Your task to perform on an android device: Show me popular games on the Play Store Image 0: 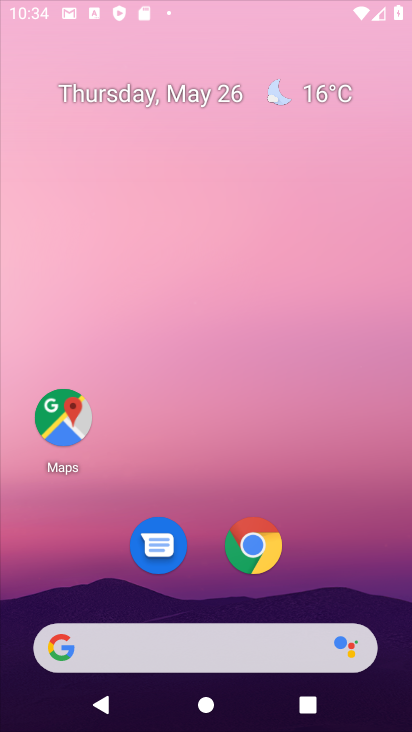
Step 0: press home button
Your task to perform on an android device: Show me popular games on the Play Store Image 1: 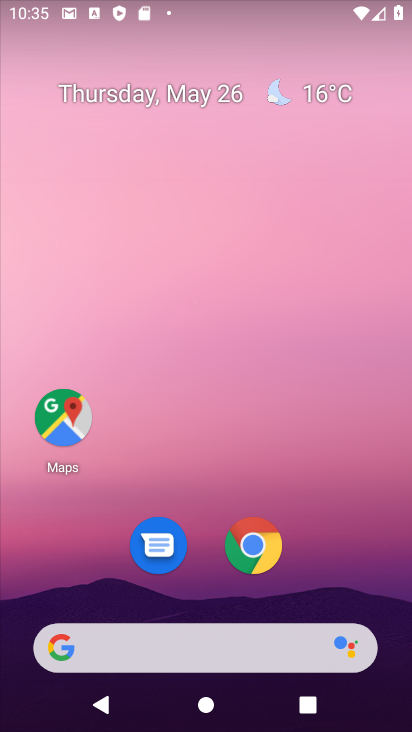
Step 1: drag from (335, 367) to (400, 15)
Your task to perform on an android device: Show me popular games on the Play Store Image 2: 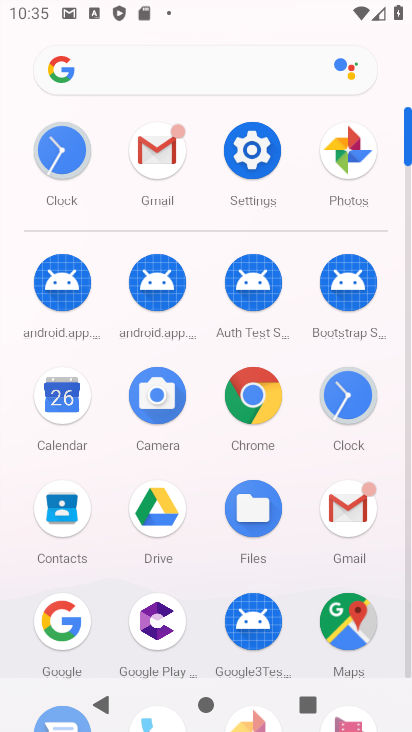
Step 2: drag from (301, 628) to (263, 61)
Your task to perform on an android device: Show me popular games on the Play Store Image 3: 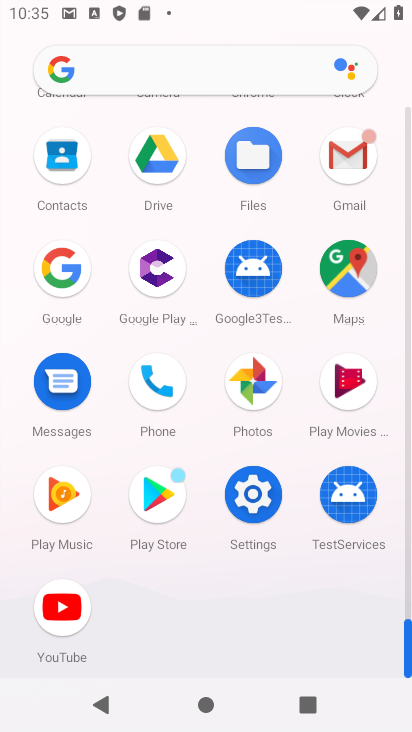
Step 3: click (151, 488)
Your task to perform on an android device: Show me popular games on the Play Store Image 4: 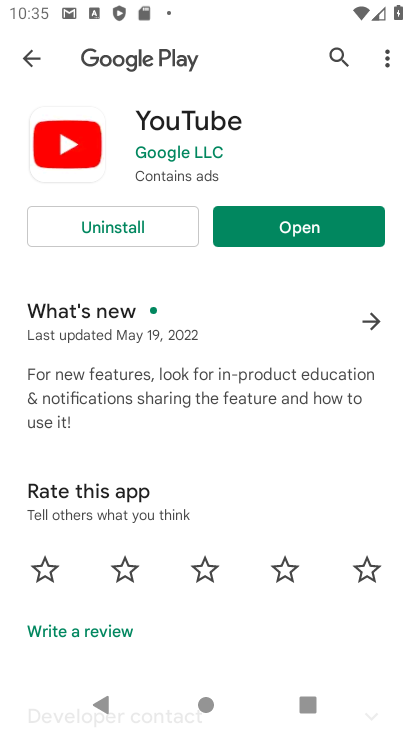
Step 4: press home button
Your task to perform on an android device: Show me popular games on the Play Store Image 5: 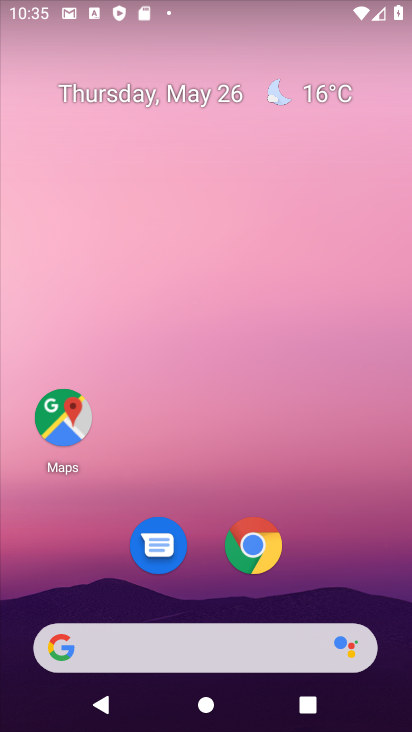
Step 5: drag from (263, 602) to (213, 70)
Your task to perform on an android device: Show me popular games on the Play Store Image 6: 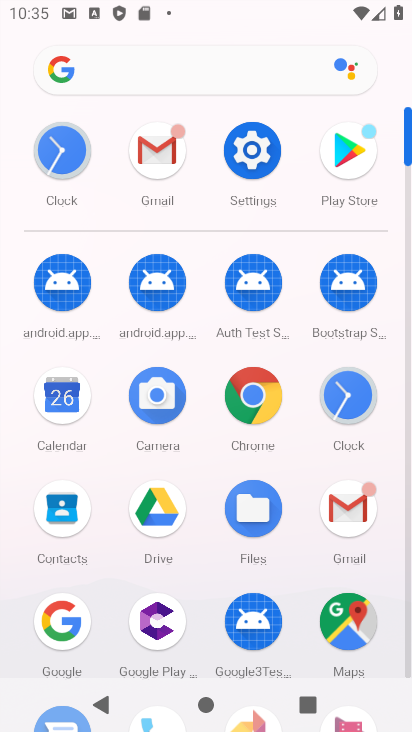
Step 6: drag from (313, 680) to (301, 418)
Your task to perform on an android device: Show me popular games on the Play Store Image 7: 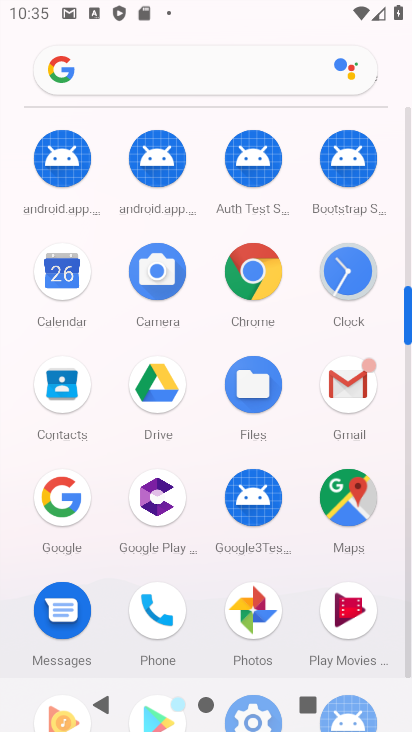
Step 7: click (161, 717)
Your task to perform on an android device: Show me popular games on the Play Store Image 8: 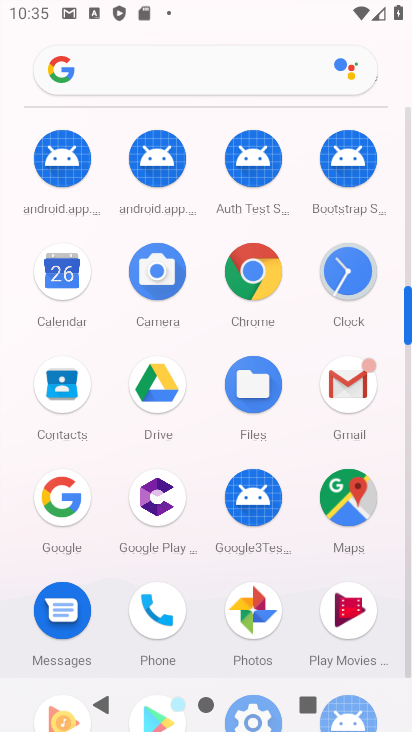
Step 8: drag from (294, 571) to (304, 216)
Your task to perform on an android device: Show me popular games on the Play Store Image 9: 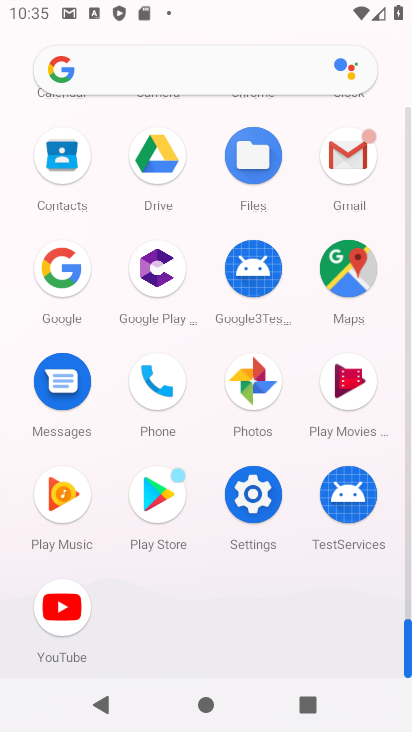
Step 9: click (154, 502)
Your task to perform on an android device: Show me popular games on the Play Store Image 10: 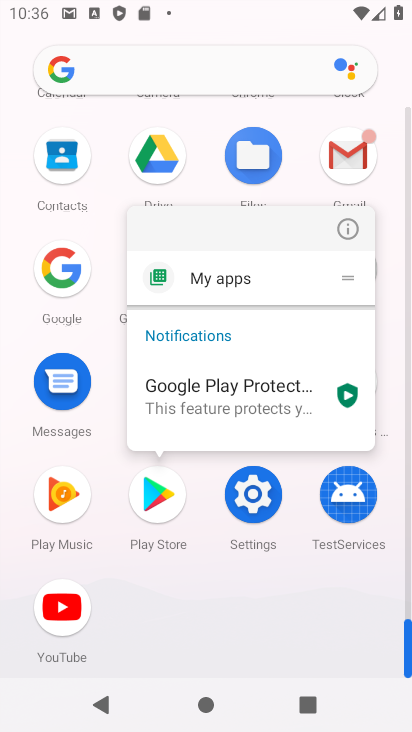
Step 10: click (165, 498)
Your task to perform on an android device: Show me popular games on the Play Store Image 11: 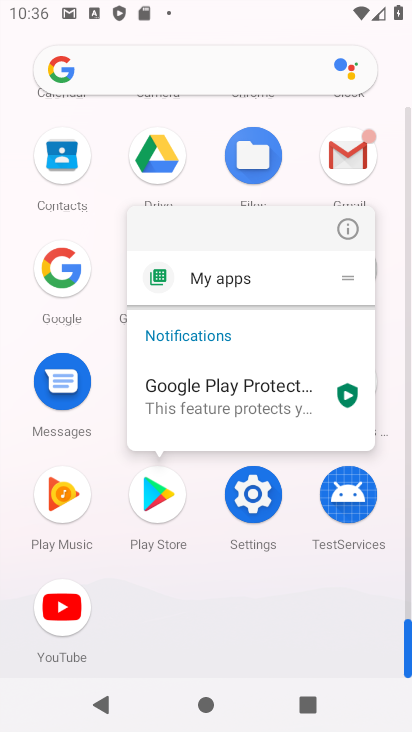
Step 11: click (167, 496)
Your task to perform on an android device: Show me popular games on the Play Store Image 12: 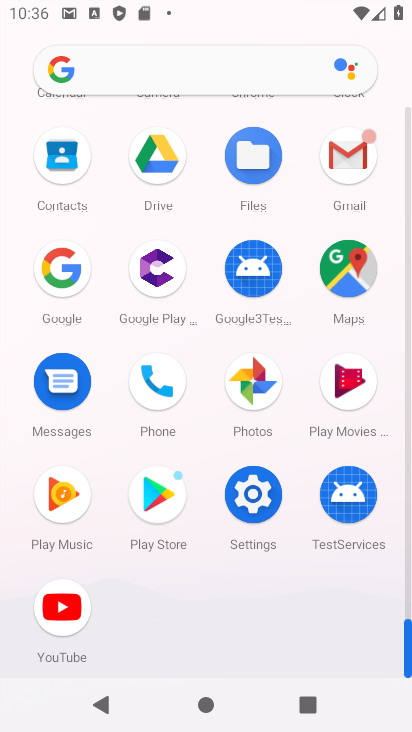
Step 12: click (167, 495)
Your task to perform on an android device: Show me popular games on the Play Store Image 13: 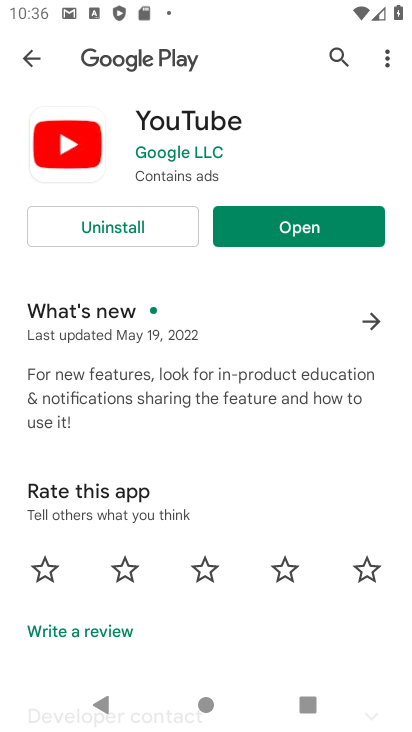
Step 13: click (35, 63)
Your task to perform on an android device: Show me popular games on the Play Store Image 14: 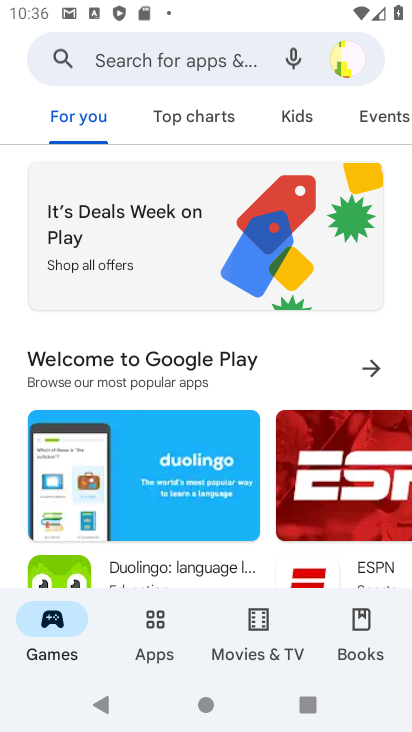
Step 14: click (155, 629)
Your task to perform on an android device: Show me popular games on the Play Store Image 15: 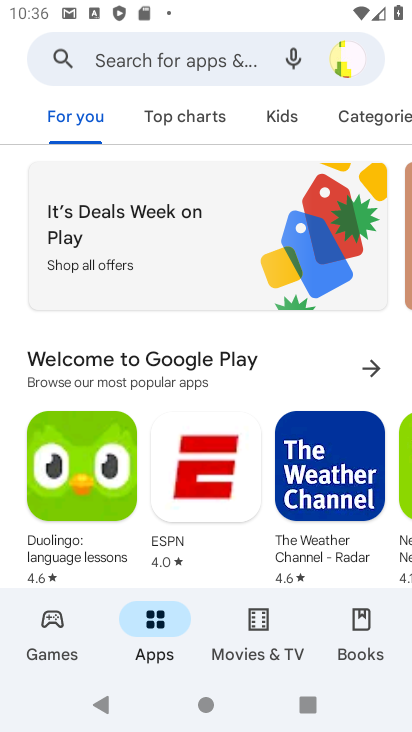
Step 15: click (43, 634)
Your task to perform on an android device: Show me popular games on the Play Store Image 16: 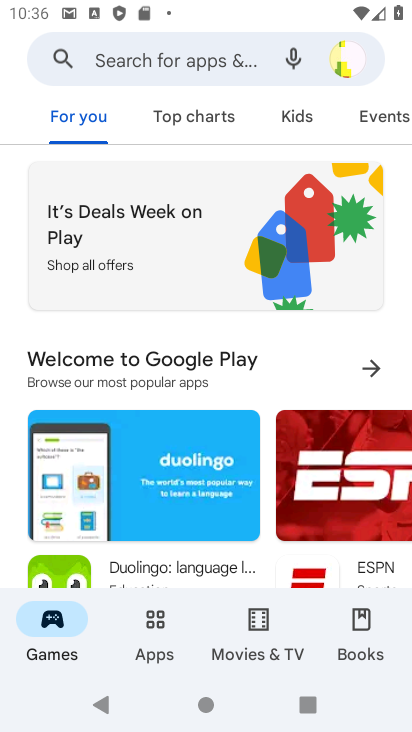
Step 16: drag from (404, 119) to (105, 139)
Your task to perform on an android device: Show me popular games on the Play Store Image 17: 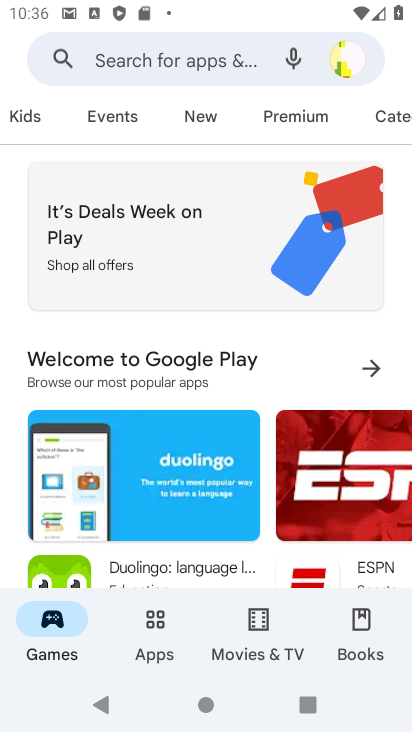
Step 17: click (386, 111)
Your task to perform on an android device: Show me popular games on the Play Store Image 18: 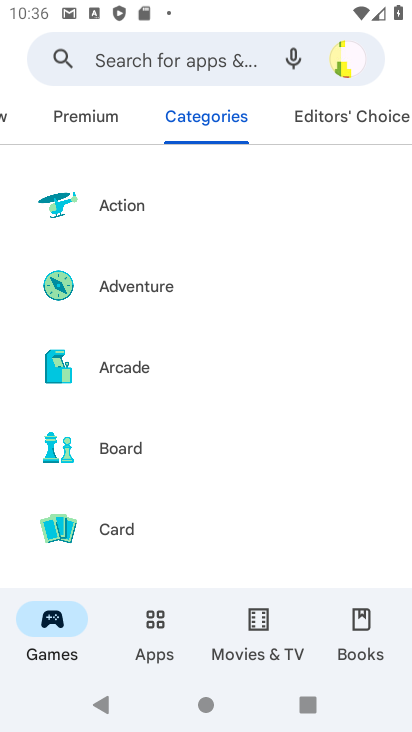
Step 18: task complete